Your task to perform on an android device: Open calendar and show me the third week of next month Image 0: 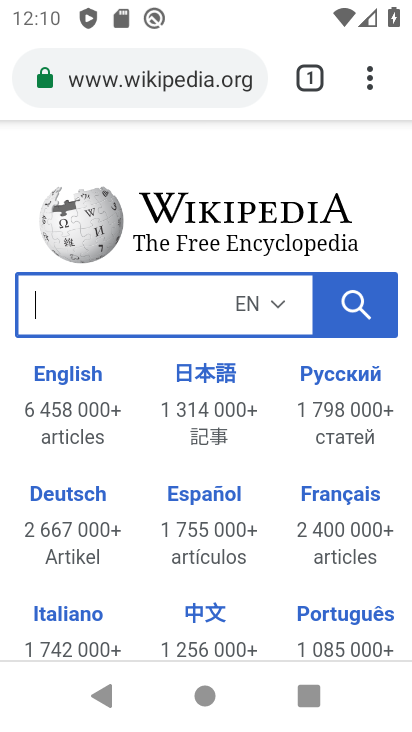
Step 0: press home button
Your task to perform on an android device: Open calendar and show me the third week of next month Image 1: 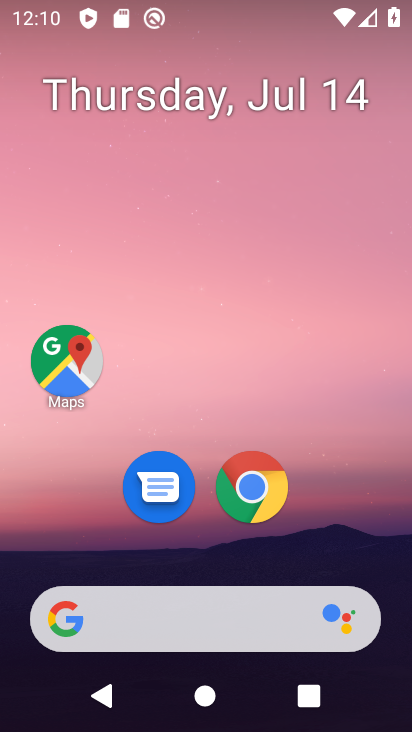
Step 1: drag from (266, 595) to (258, 142)
Your task to perform on an android device: Open calendar and show me the third week of next month Image 2: 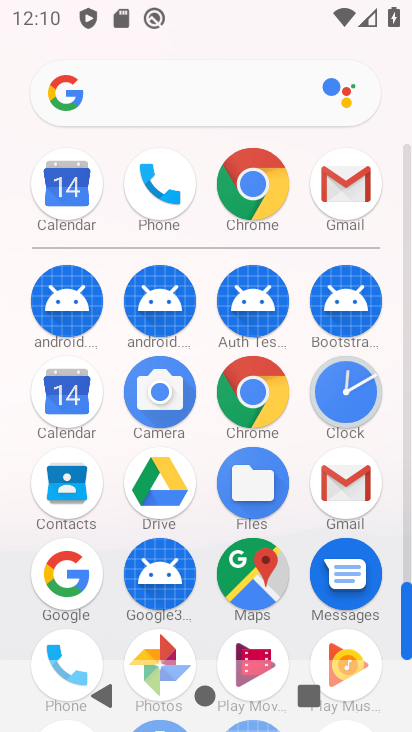
Step 2: drag from (191, 487) to (213, 267)
Your task to perform on an android device: Open calendar and show me the third week of next month Image 3: 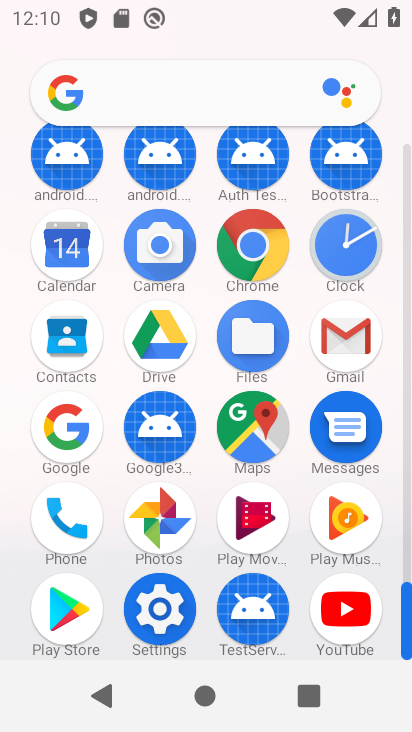
Step 3: click (85, 268)
Your task to perform on an android device: Open calendar and show me the third week of next month Image 4: 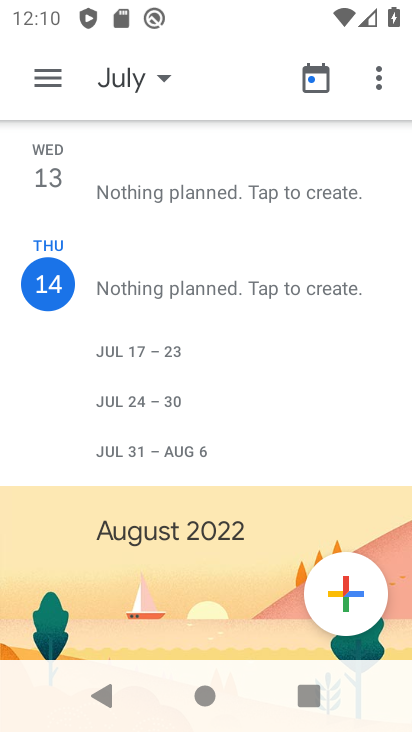
Step 4: click (165, 90)
Your task to perform on an android device: Open calendar and show me the third week of next month Image 5: 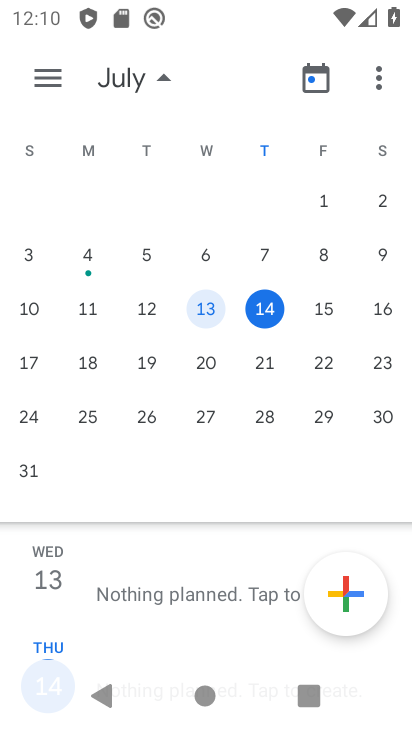
Step 5: drag from (322, 408) to (0, 293)
Your task to perform on an android device: Open calendar and show me the third week of next month Image 6: 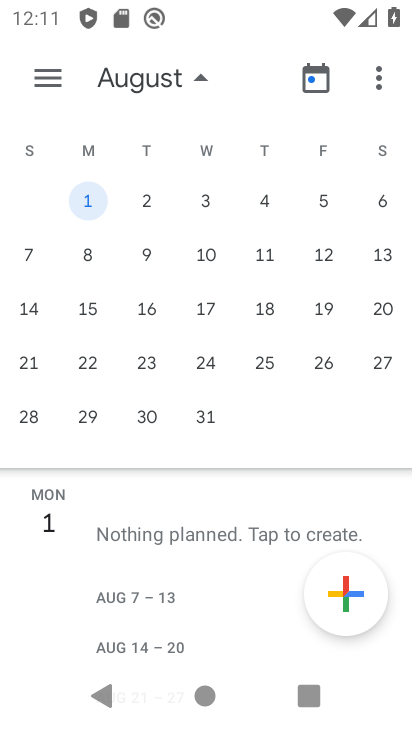
Step 6: click (89, 319)
Your task to perform on an android device: Open calendar and show me the third week of next month Image 7: 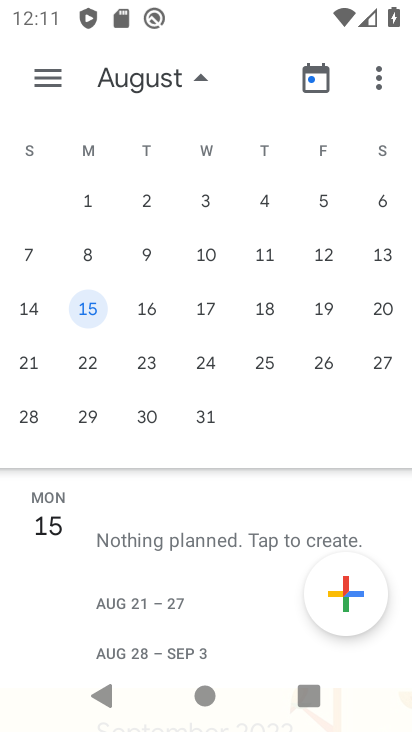
Step 7: task complete